Your task to perform on an android device: open app "Gboard" Image 0: 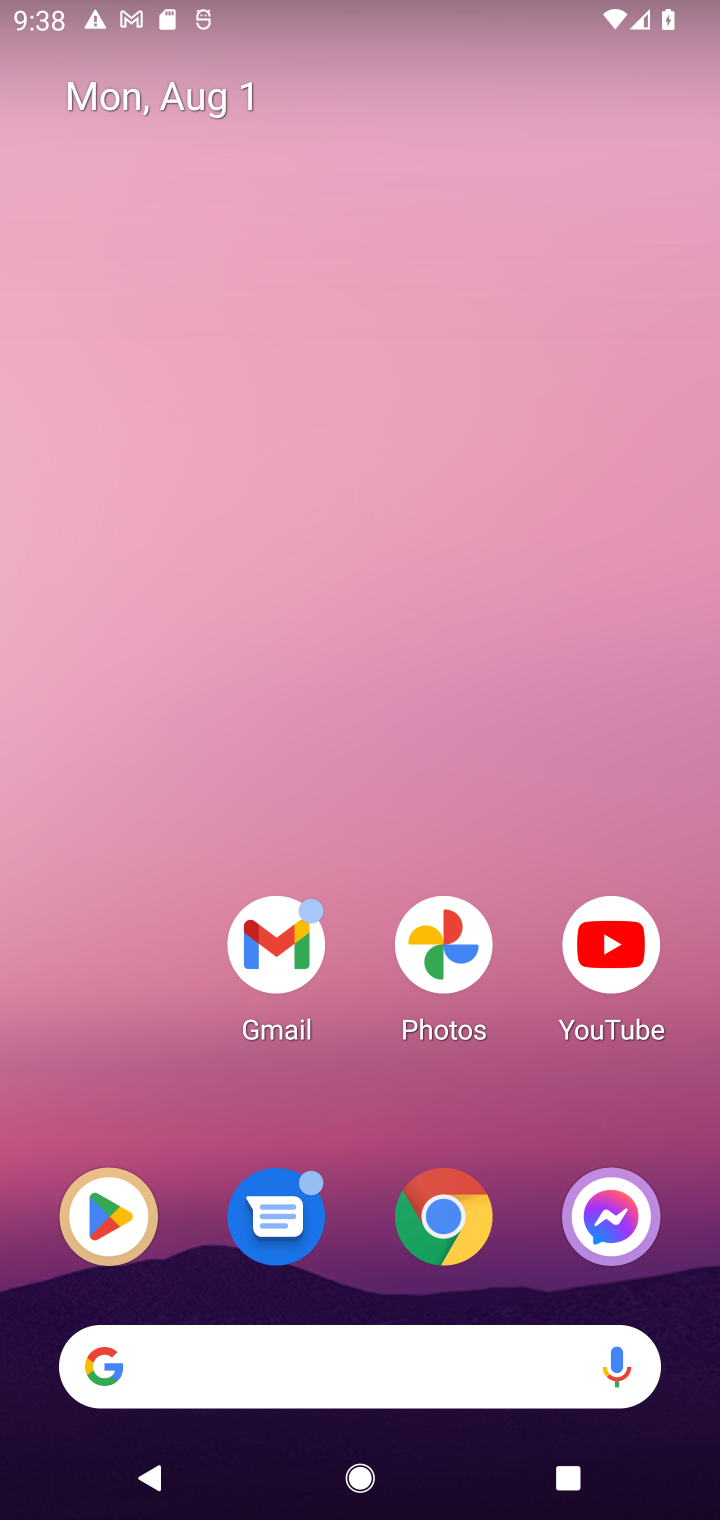
Step 0: click (103, 1239)
Your task to perform on an android device: open app "Gboard" Image 1: 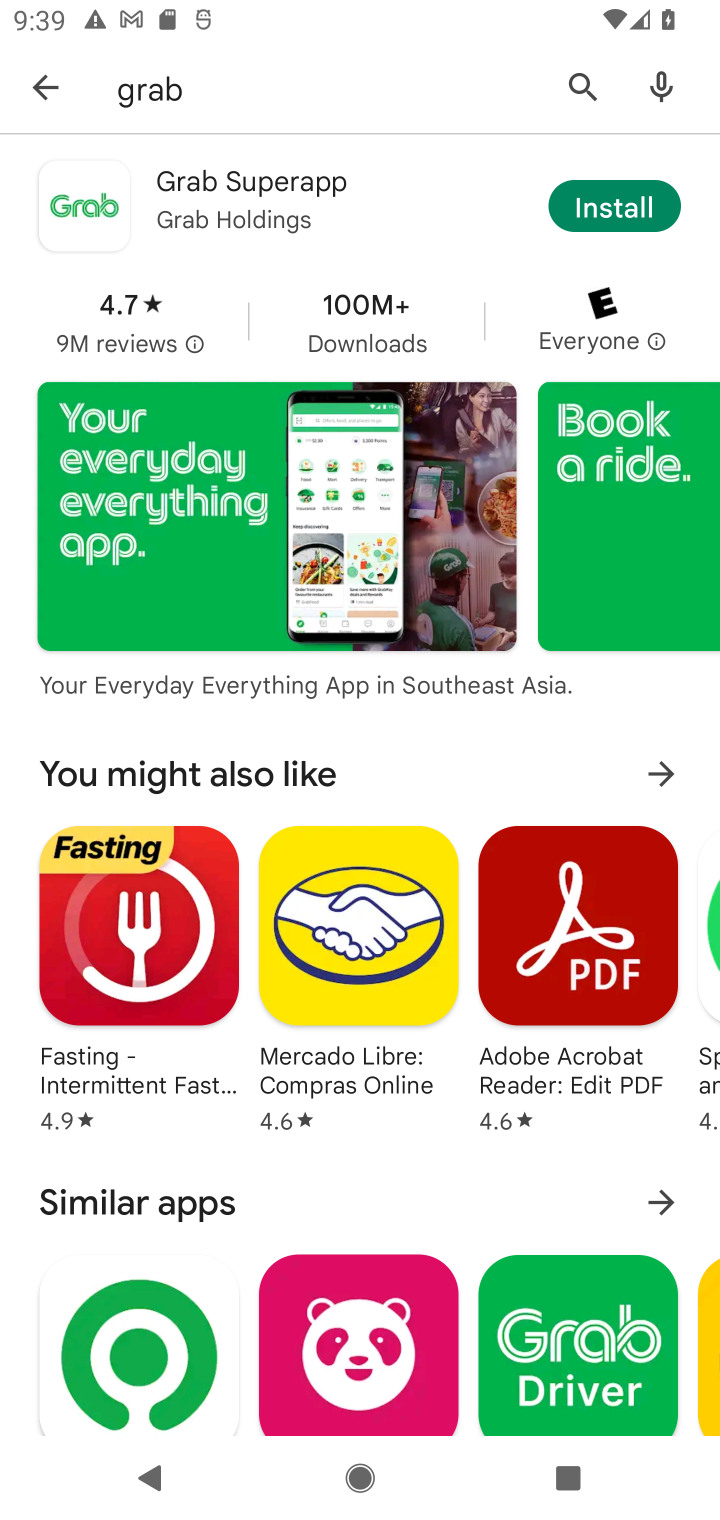
Step 1: click (591, 96)
Your task to perform on an android device: open app "Gboard" Image 2: 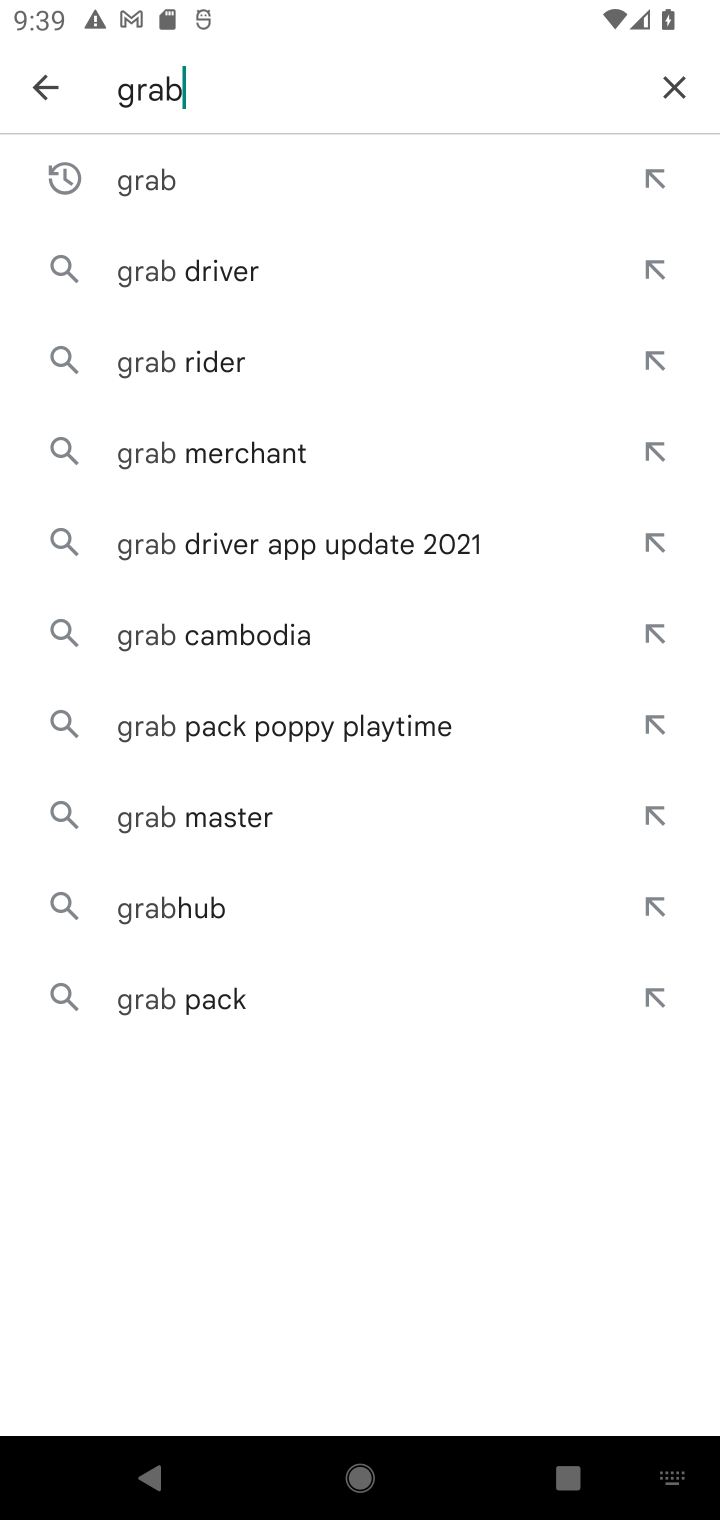
Step 2: click (694, 93)
Your task to perform on an android device: open app "Gboard" Image 3: 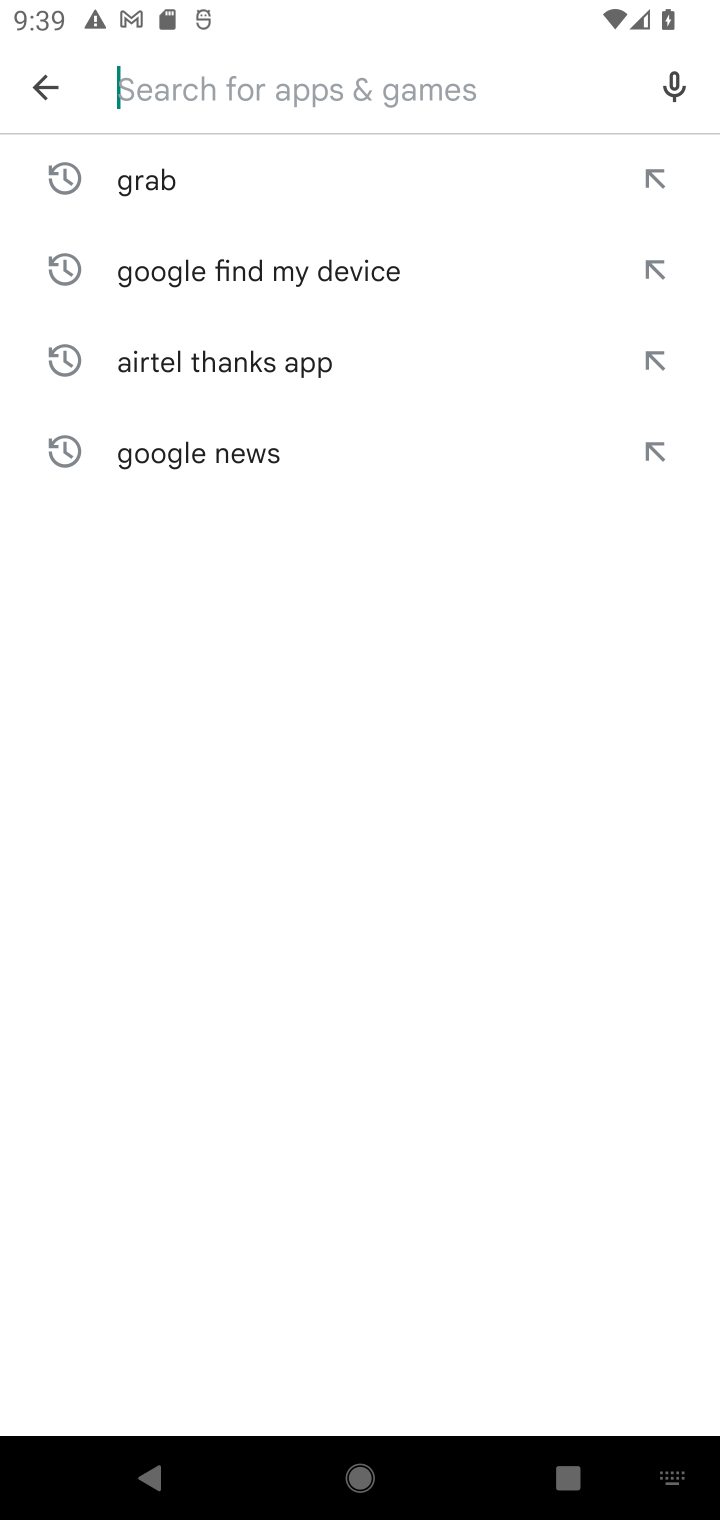
Step 3: type "Gboard"
Your task to perform on an android device: open app "Gboard" Image 4: 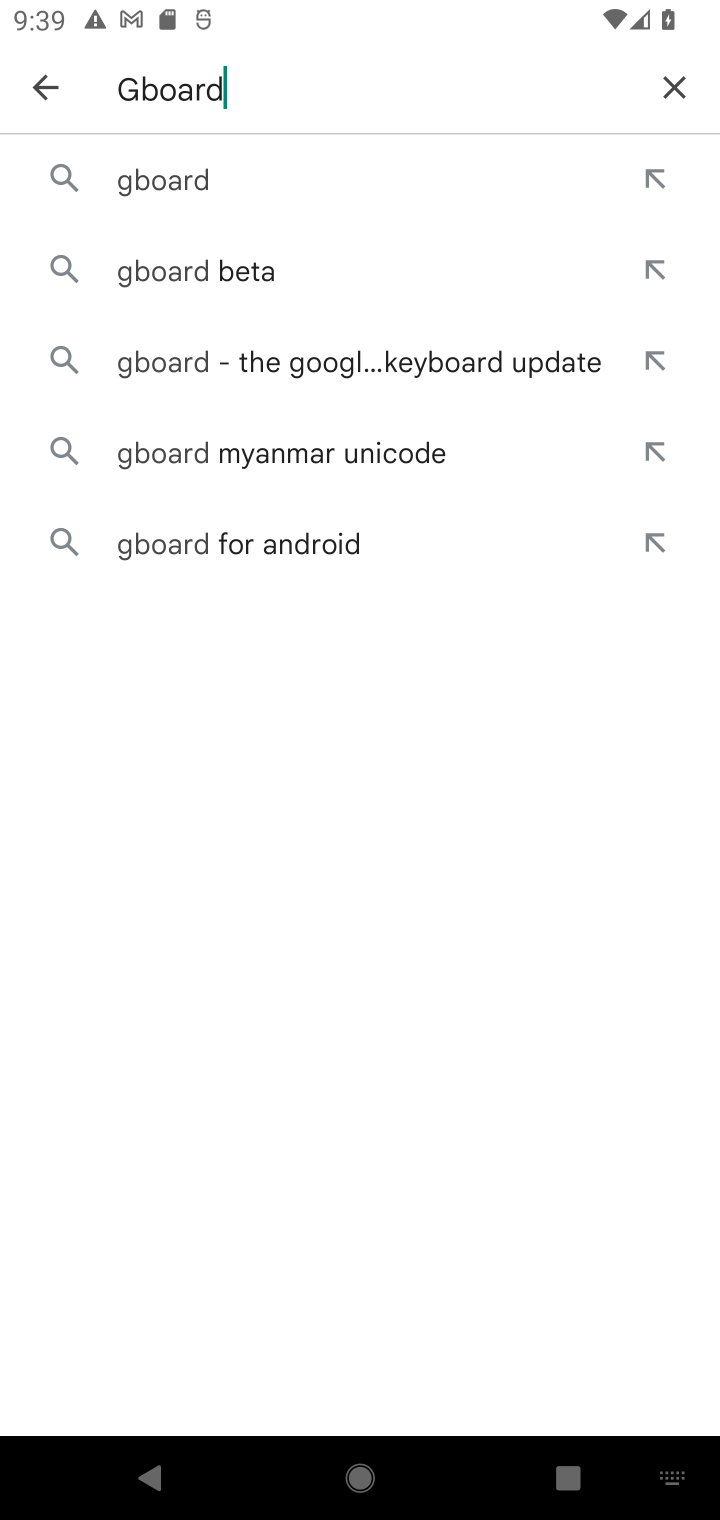
Step 4: click (139, 178)
Your task to perform on an android device: open app "Gboard" Image 5: 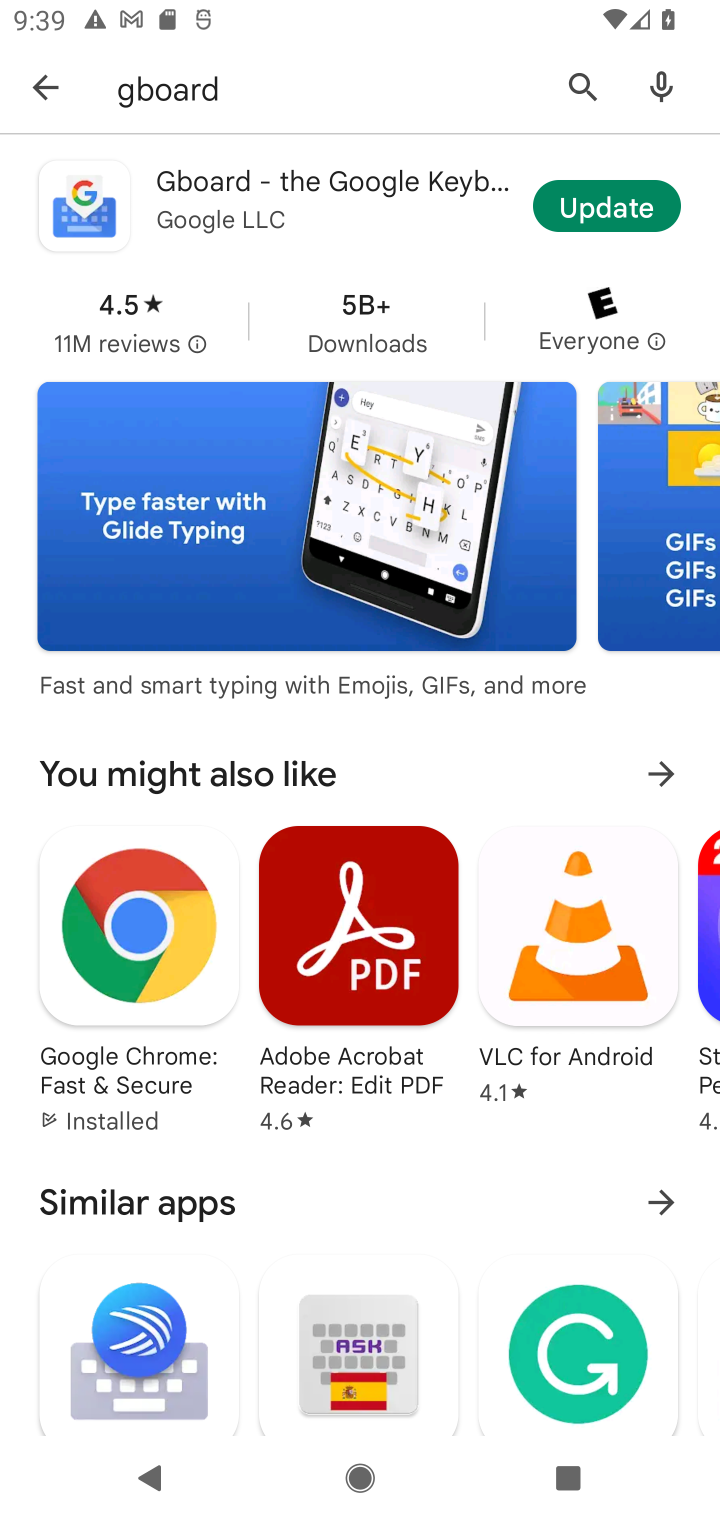
Step 5: task complete